Your task to perform on an android device: Go to privacy settings Image 0: 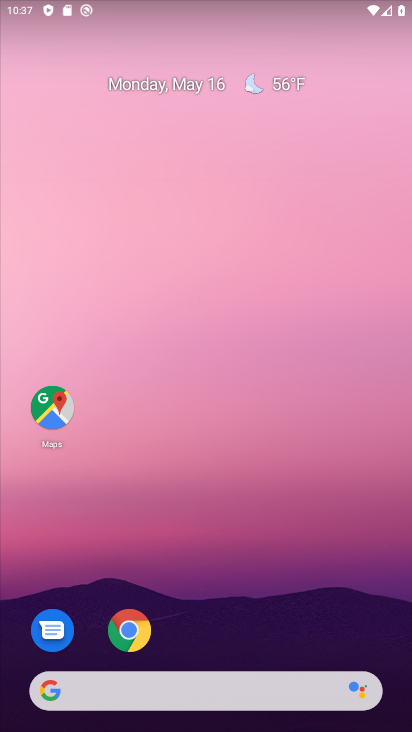
Step 0: click (137, 641)
Your task to perform on an android device: Go to privacy settings Image 1: 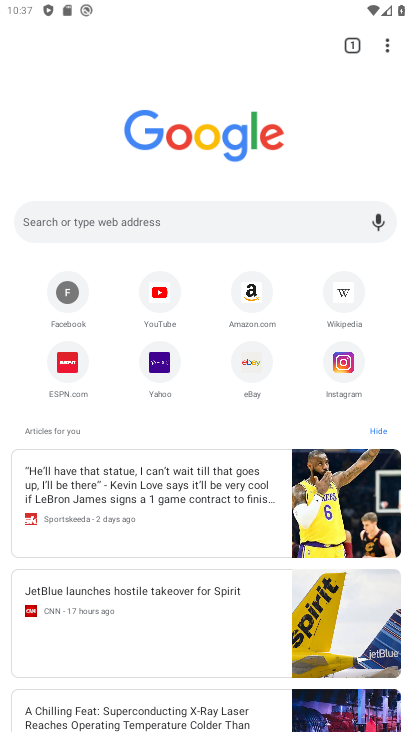
Step 1: drag from (399, 50) to (286, 384)
Your task to perform on an android device: Go to privacy settings Image 2: 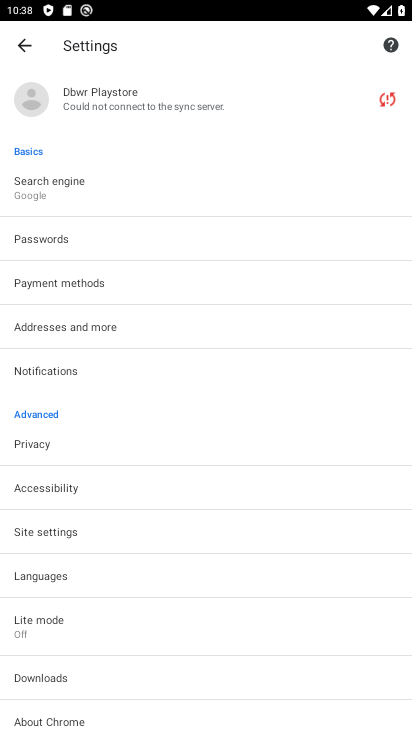
Step 2: click (117, 439)
Your task to perform on an android device: Go to privacy settings Image 3: 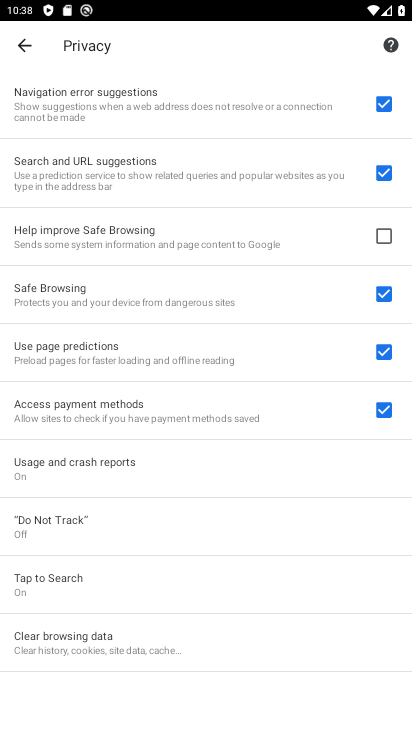
Step 3: task complete